Your task to perform on an android device: open app "Pluto TV - Live TV and Movies" Image 0: 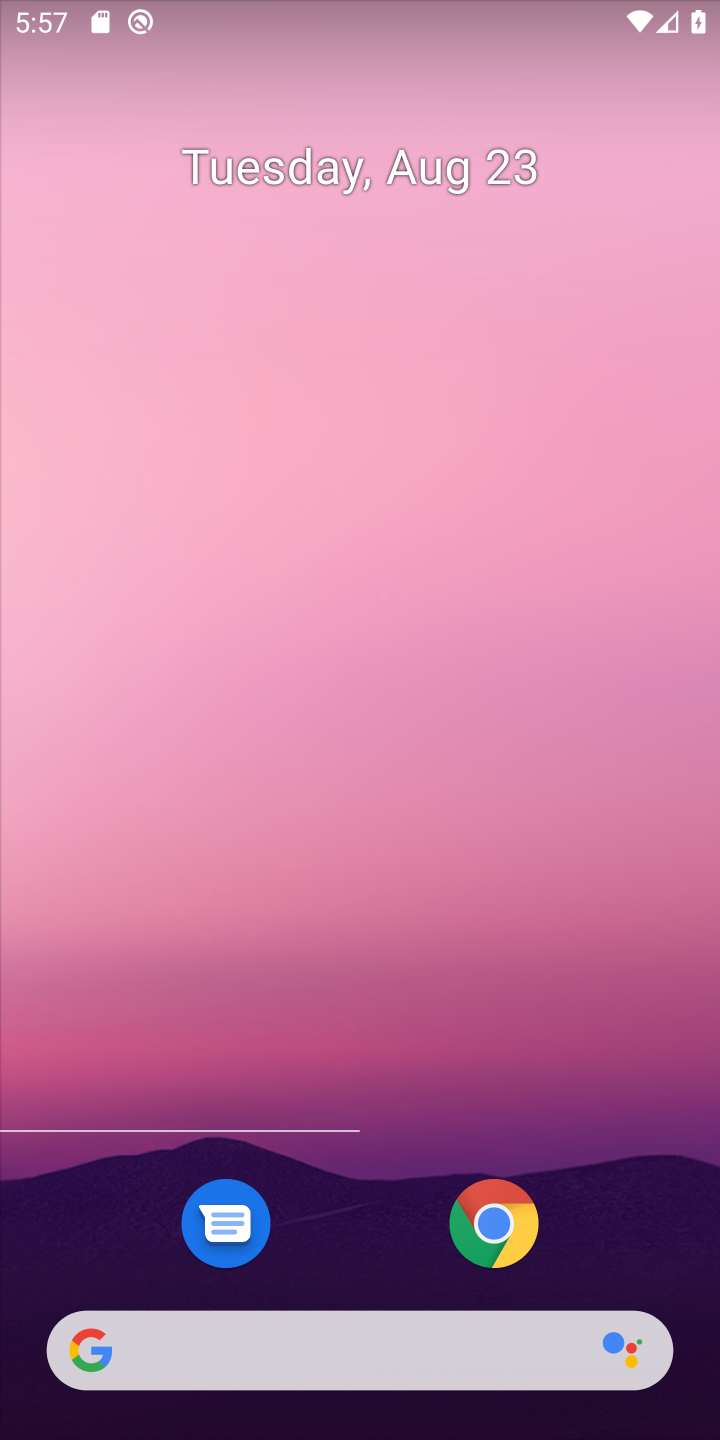
Step 0: drag from (357, 1341) to (234, 100)
Your task to perform on an android device: open app "Pluto TV - Live TV and Movies" Image 1: 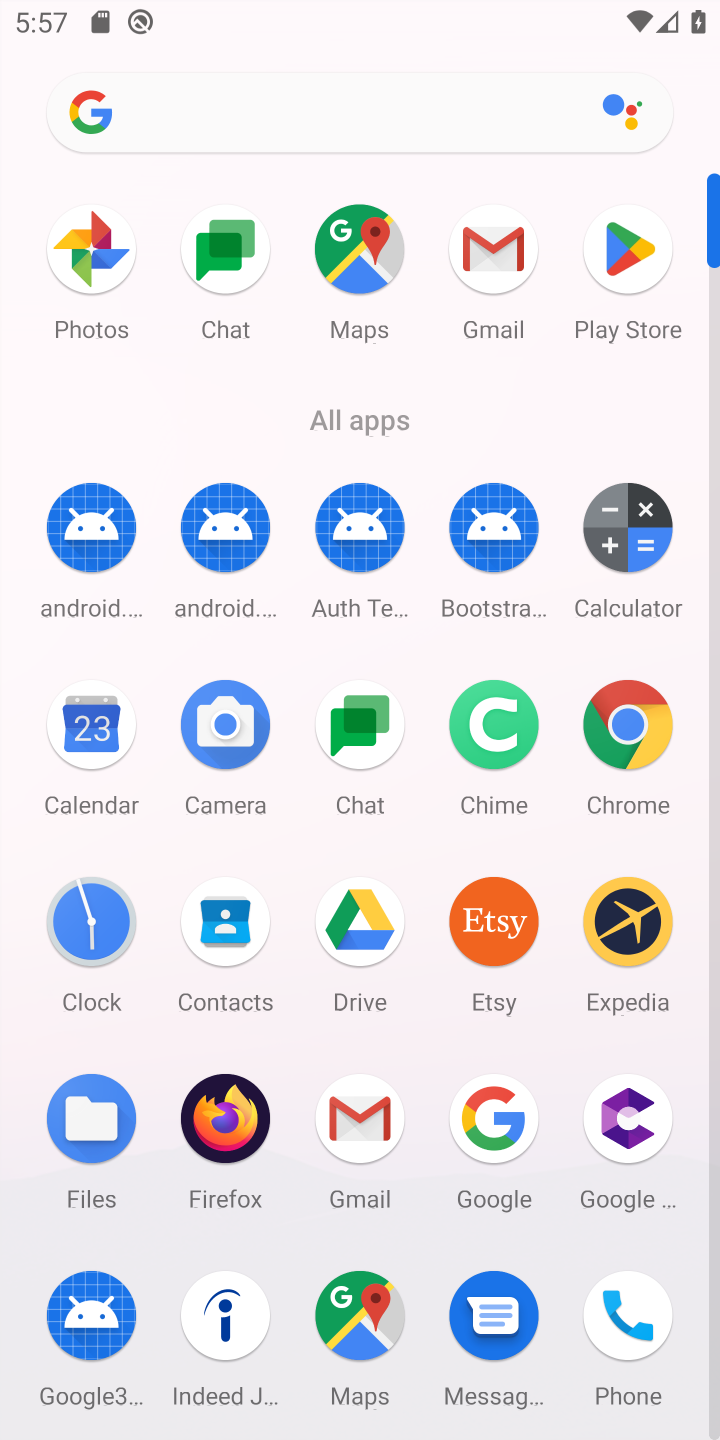
Step 1: click (637, 271)
Your task to perform on an android device: open app "Pluto TV - Live TV and Movies" Image 2: 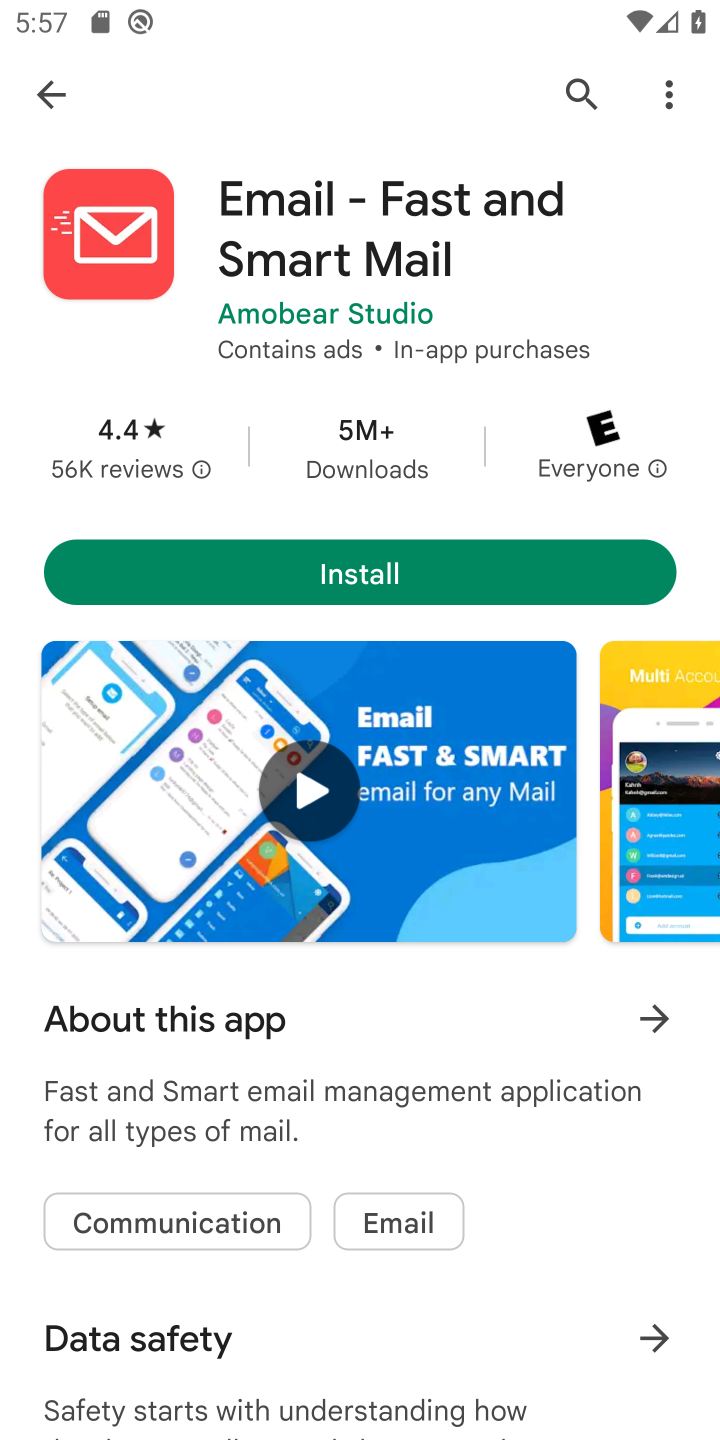
Step 2: click (579, 90)
Your task to perform on an android device: open app "Pluto TV - Live TV and Movies" Image 3: 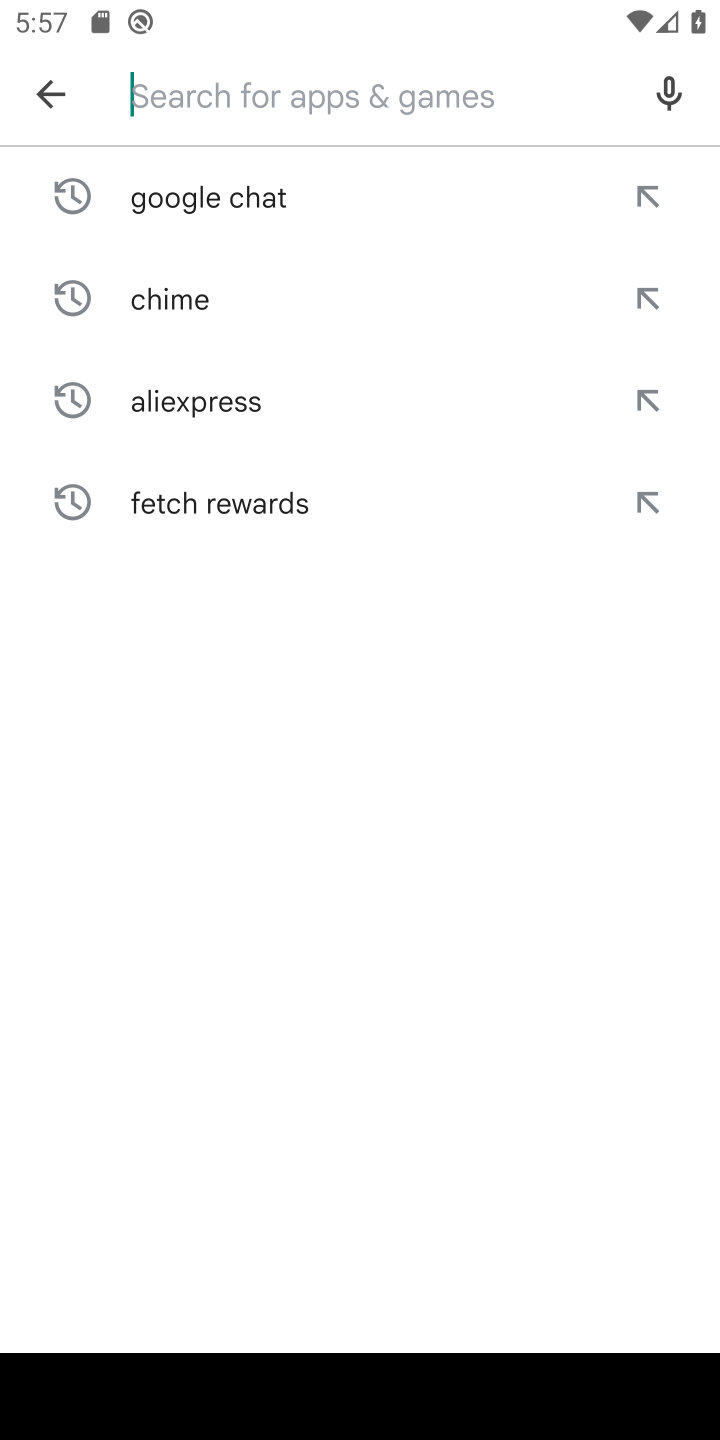
Step 3: click (445, 103)
Your task to perform on an android device: open app "Pluto TV - Live TV and Movies" Image 4: 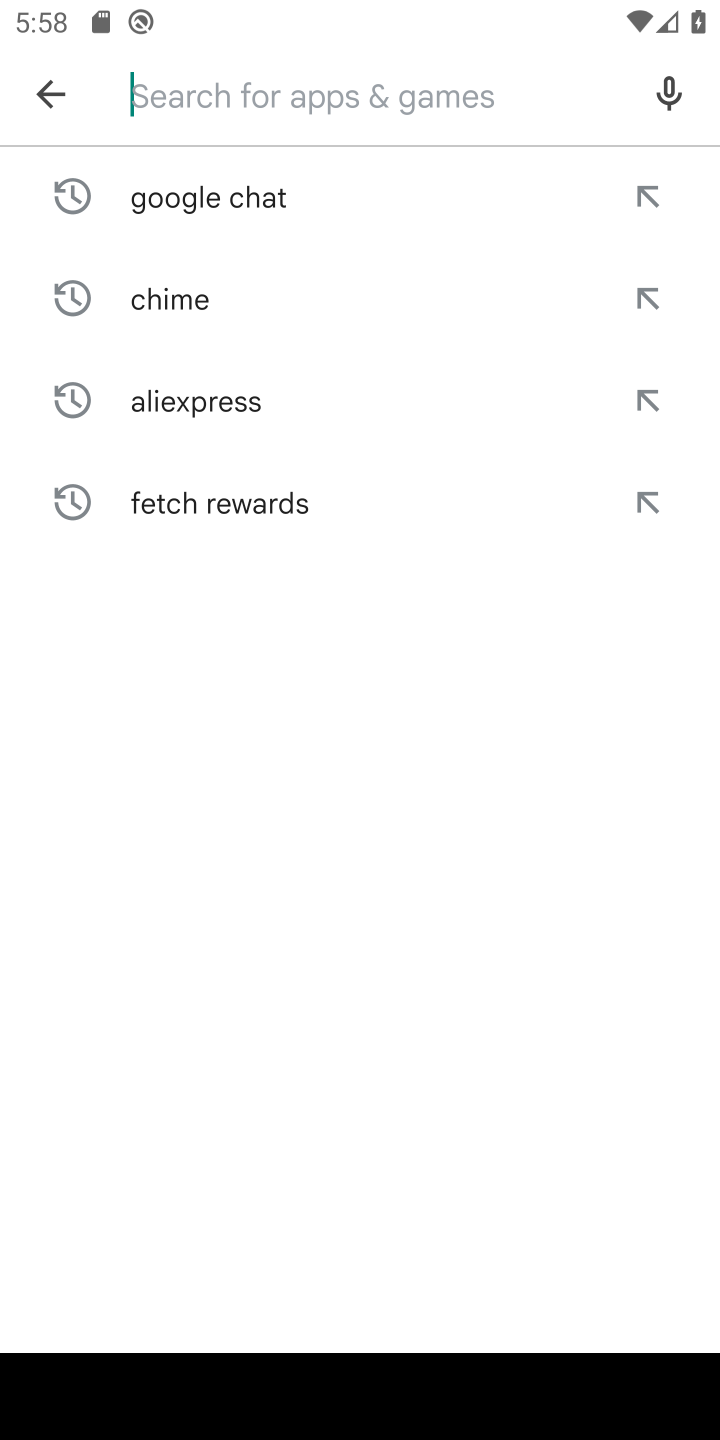
Step 4: type "pluto tv"
Your task to perform on an android device: open app "Pluto TV - Live TV and Movies" Image 5: 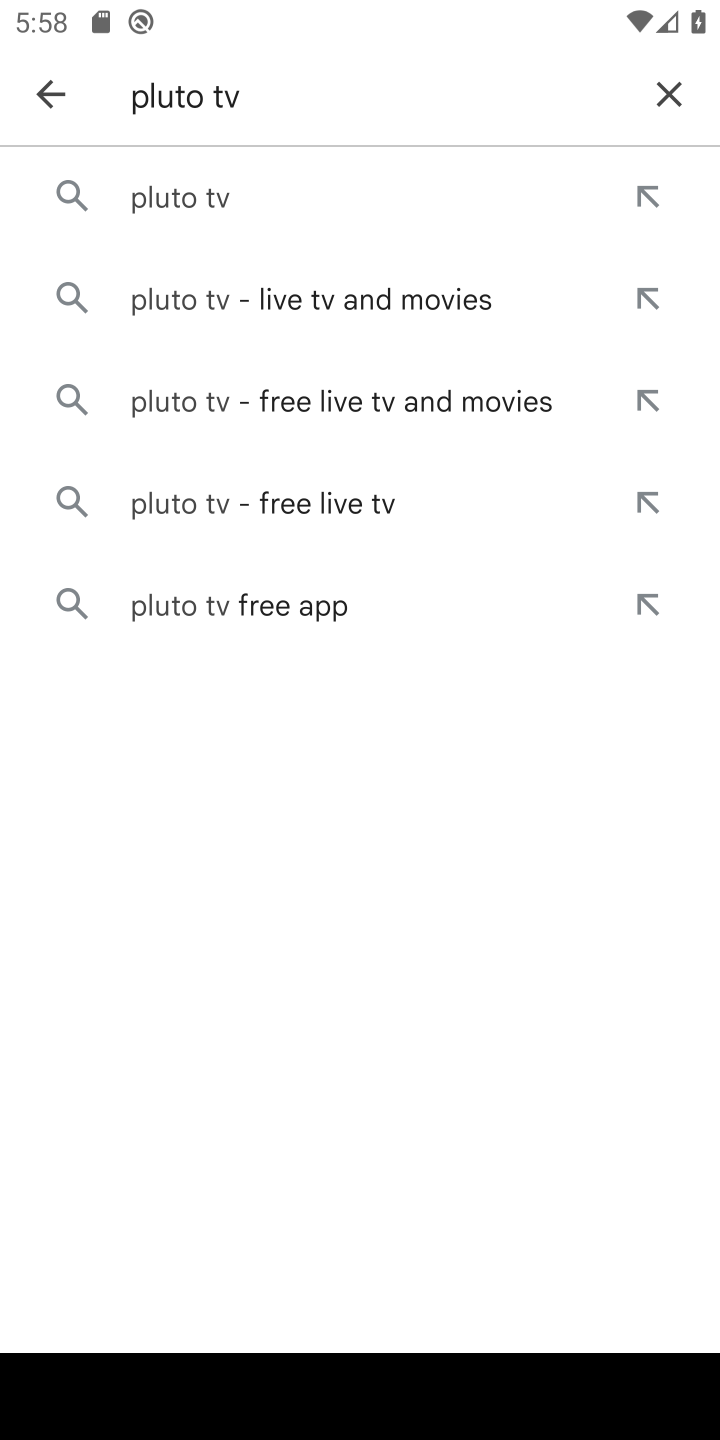
Step 5: click (163, 212)
Your task to perform on an android device: open app "Pluto TV - Live TV and Movies" Image 6: 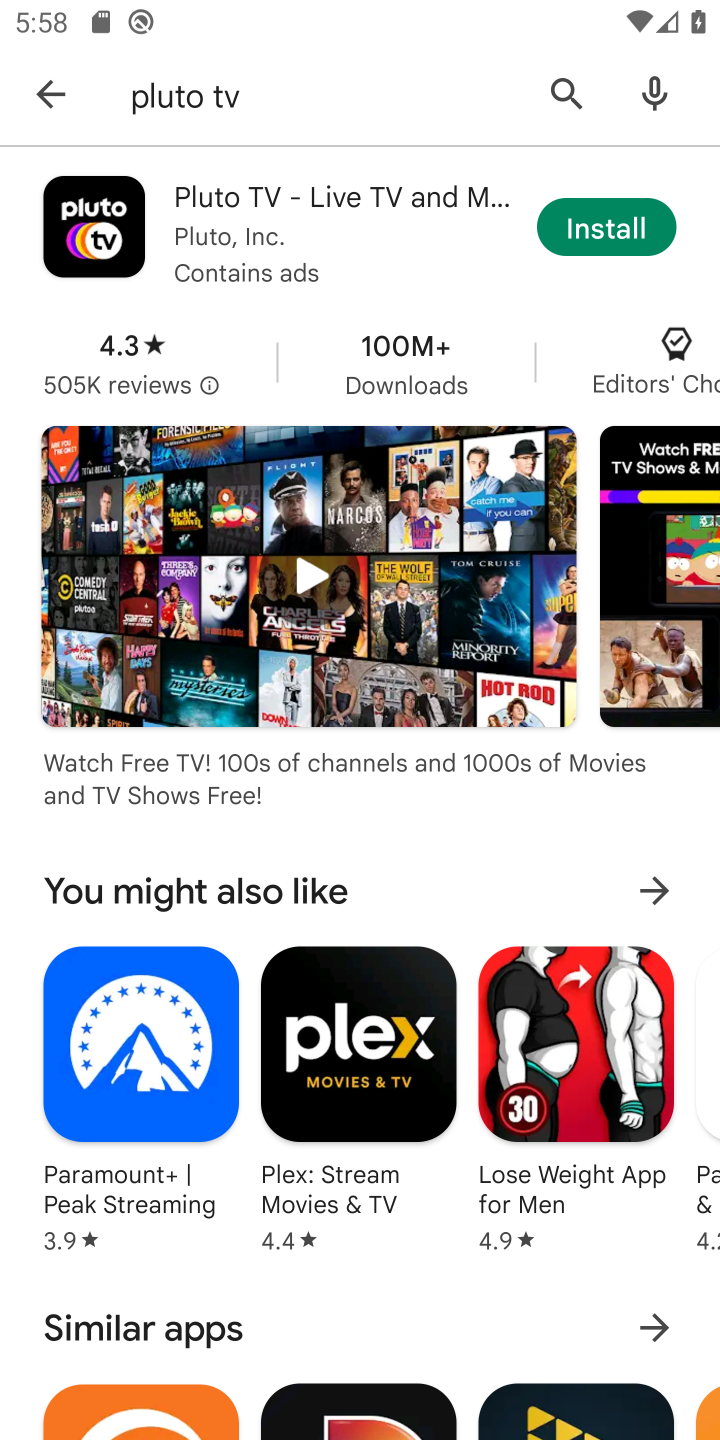
Step 6: task complete